Your task to perform on an android device: turn notification dots off Image 0: 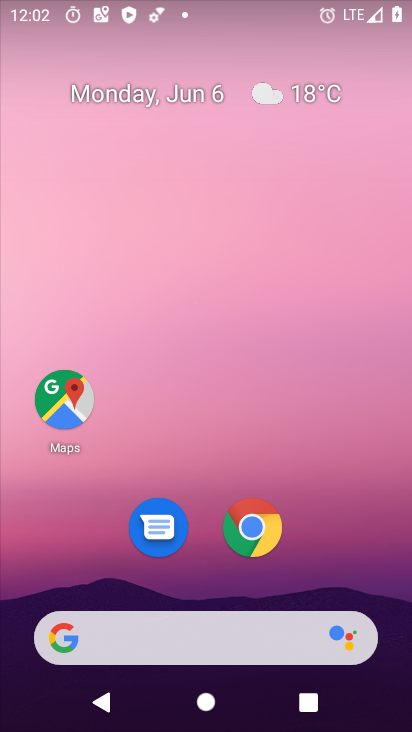
Step 0: drag from (313, 497) to (179, 8)
Your task to perform on an android device: turn notification dots off Image 1: 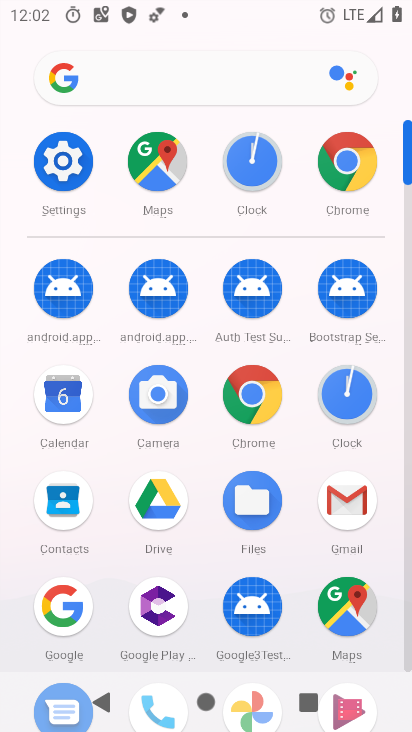
Step 1: click (61, 162)
Your task to perform on an android device: turn notification dots off Image 2: 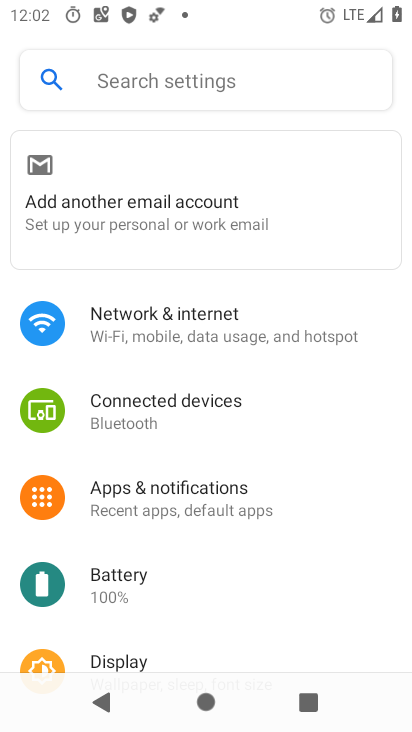
Step 2: drag from (278, 598) to (294, 235)
Your task to perform on an android device: turn notification dots off Image 3: 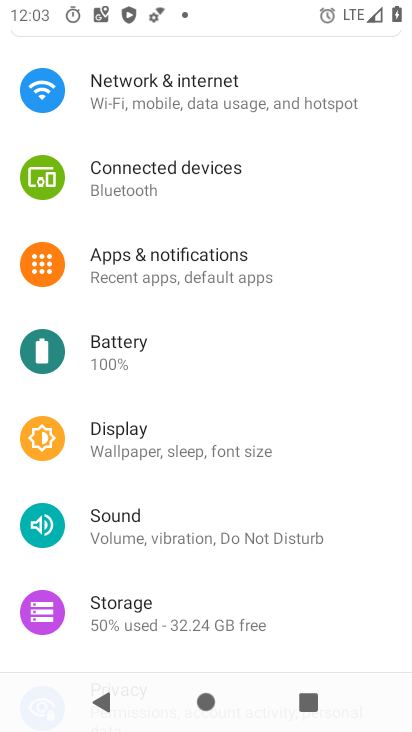
Step 3: click (189, 248)
Your task to perform on an android device: turn notification dots off Image 4: 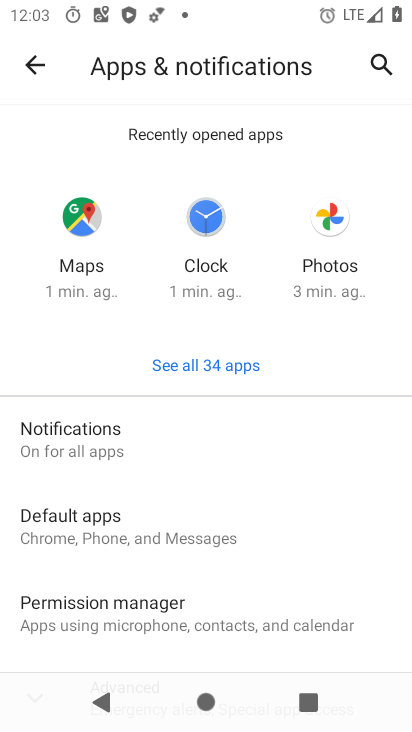
Step 4: click (196, 436)
Your task to perform on an android device: turn notification dots off Image 5: 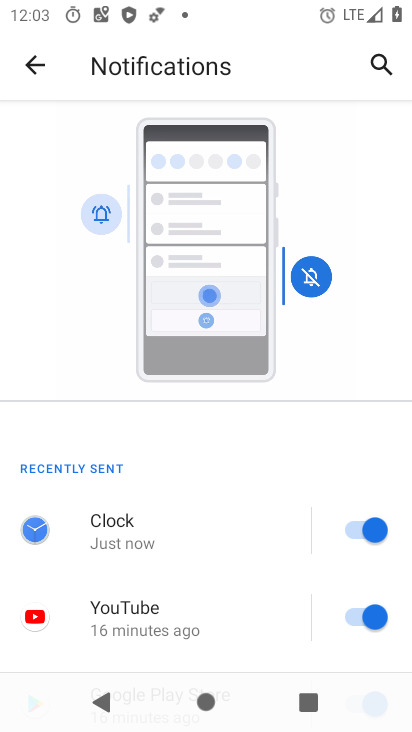
Step 5: drag from (250, 593) to (259, 105)
Your task to perform on an android device: turn notification dots off Image 6: 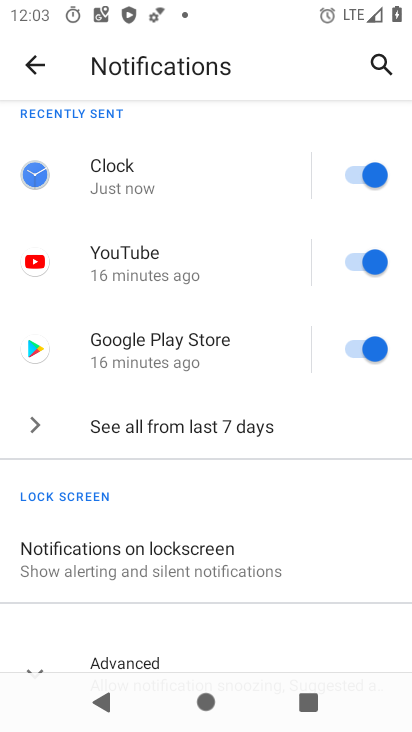
Step 6: drag from (293, 569) to (277, 277)
Your task to perform on an android device: turn notification dots off Image 7: 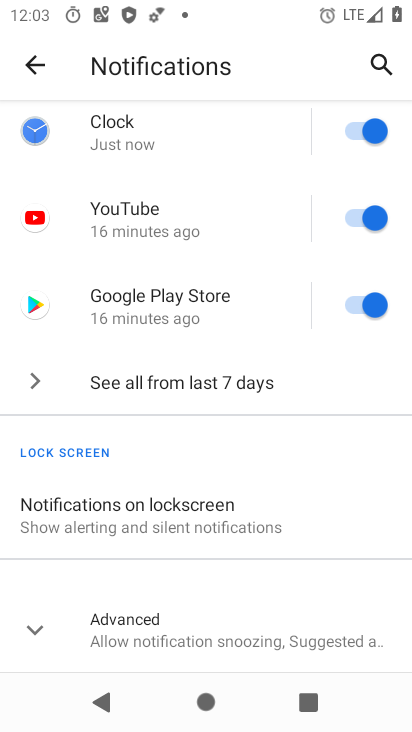
Step 7: click (221, 613)
Your task to perform on an android device: turn notification dots off Image 8: 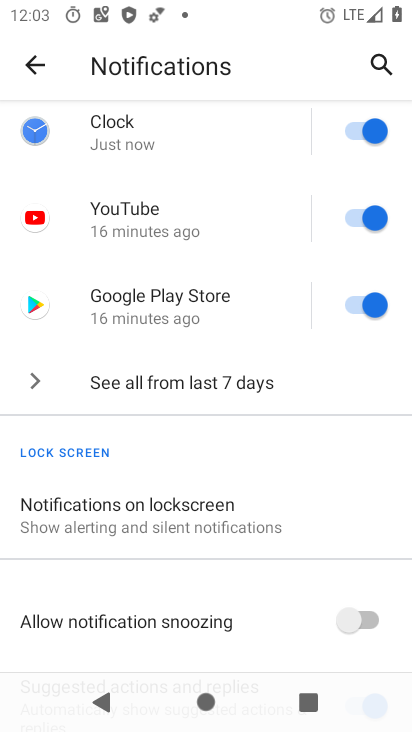
Step 8: drag from (279, 598) to (237, 135)
Your task to perform on an android device: turn notification dots off Image 9: 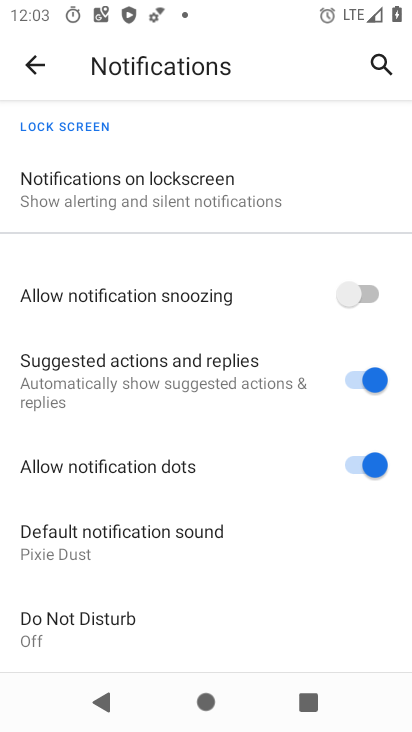
Step 9: click (364, 463)
Your task to perform on an android device: turn notification dots off Image 10: 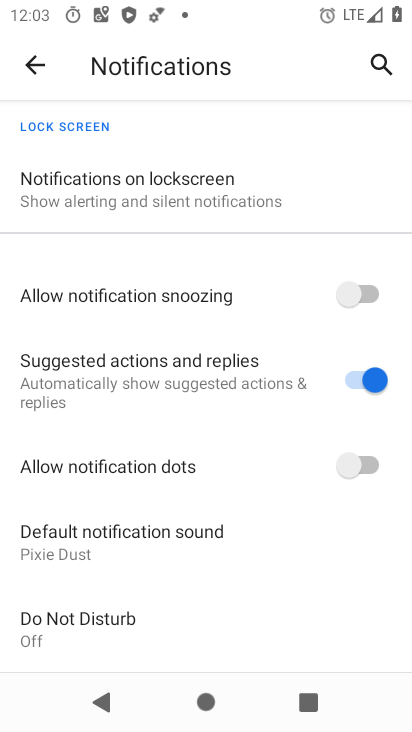
Step 10: task complete